Your task to perform on an android device: Open the map Image 0: 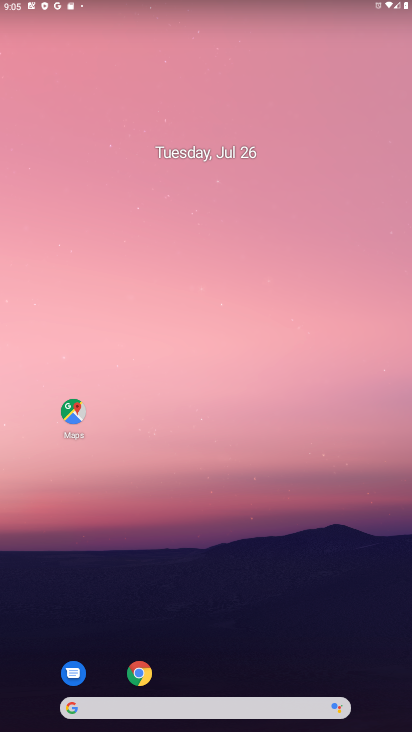
Step 0: drag from (176, 701) to (141, 258)
Your task to perform on an android device: Open the map Image 1: 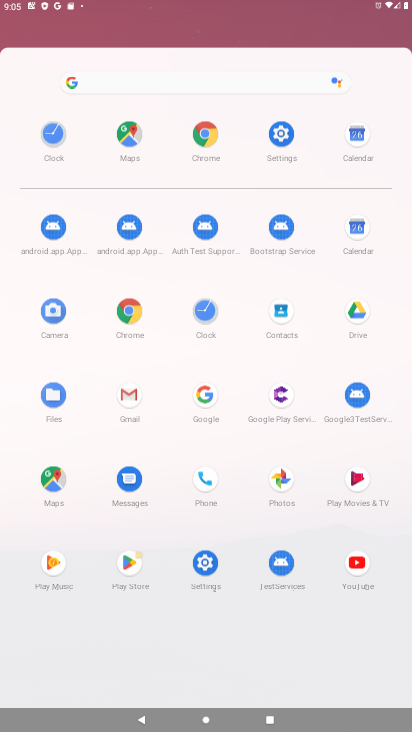
Step 1: drag from (179, 305) to (179, 104)
Your task to perform on an android device: Open the map Image 2: 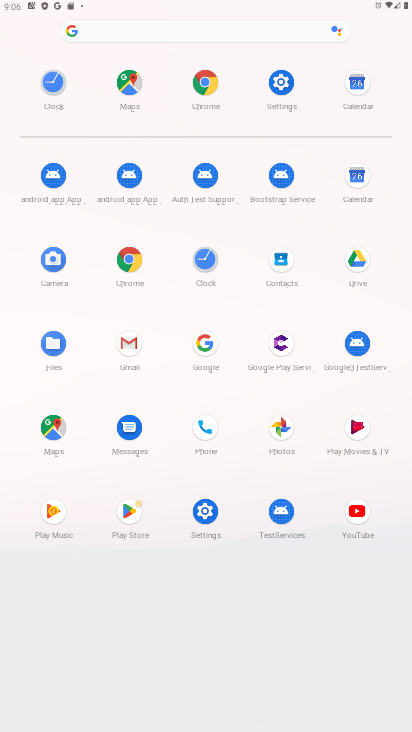
Step 2: click (37, 422)
Your task to perform on an android device: Open the map Image 3: 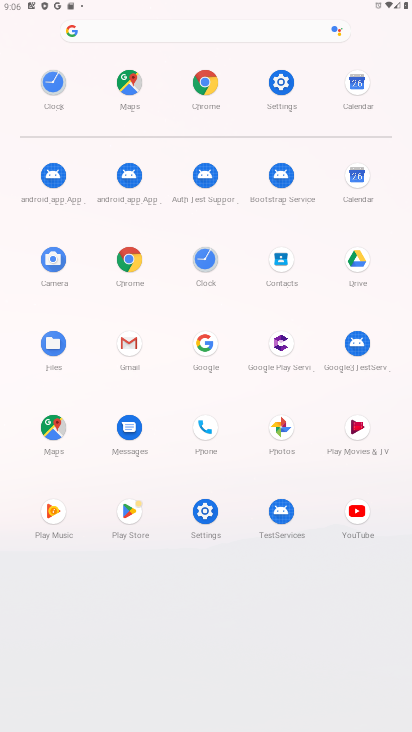
Step 3: click (37, 422)
Your task to perform on an android device: Open the map Image 4: 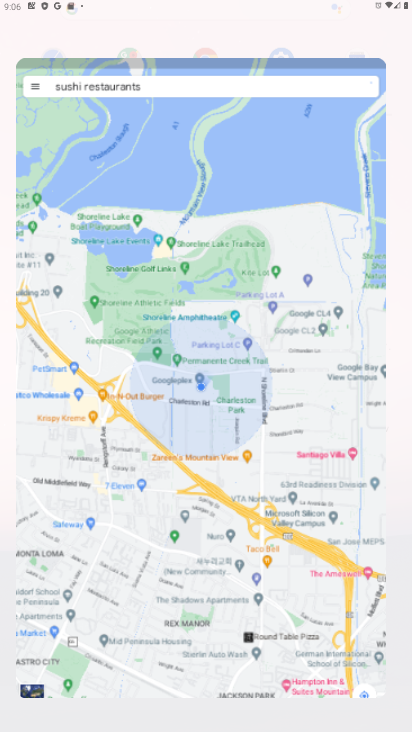
Step 4: click (41, 425)
Your task to perform on an android device: Open the map Image 5: 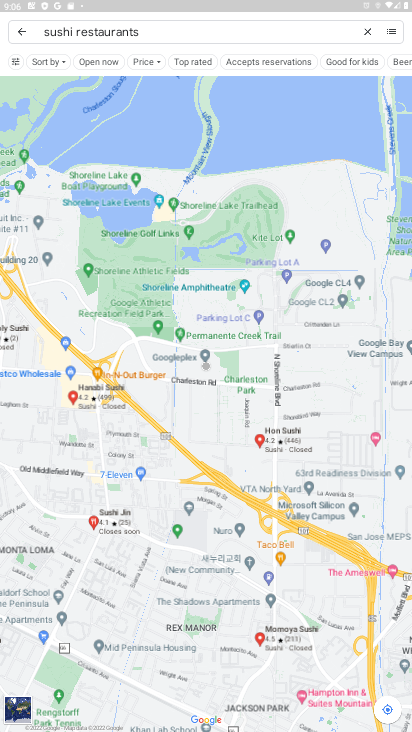
Step 5: task complete